Your task to perform on an android device: Search for vegetarian restaurants on Maps Image 0: 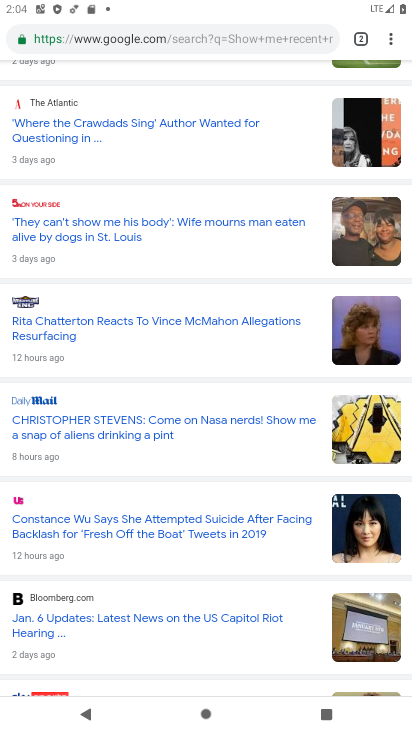
Step 0: press home button
Your task to perform on an android device: Search for vegetarian restaurants on Maps Image 1: 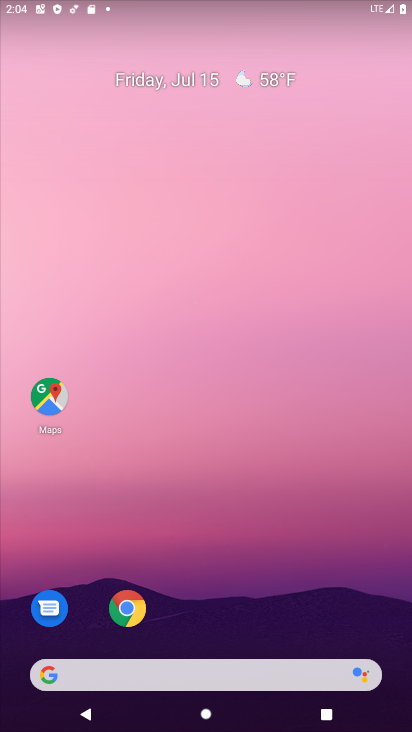
Step 1: drag from (307, 583) to (285, 103)
Your task to perform on an android device: Search for vegetarian restaurants on Maps Image 2: 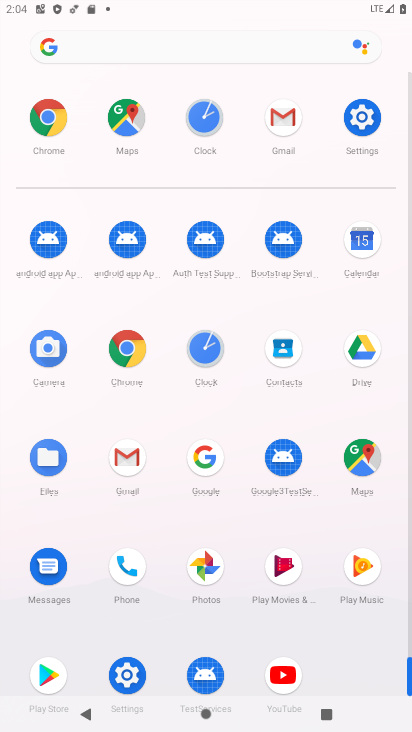
Step 2: click (359, 438)
Your task to perform on an android device: Search for vegetarian restaurants on Maps Image 3: 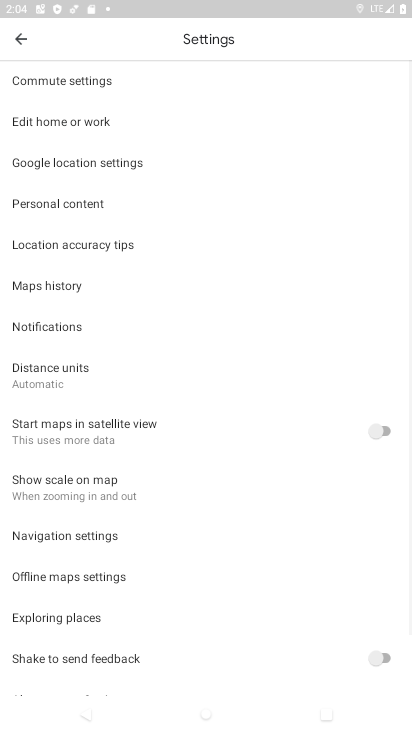
Step 3: click (26, 39)
Your task to perform on an android device: Search for vegetarian restaurants on Maps Image 4: 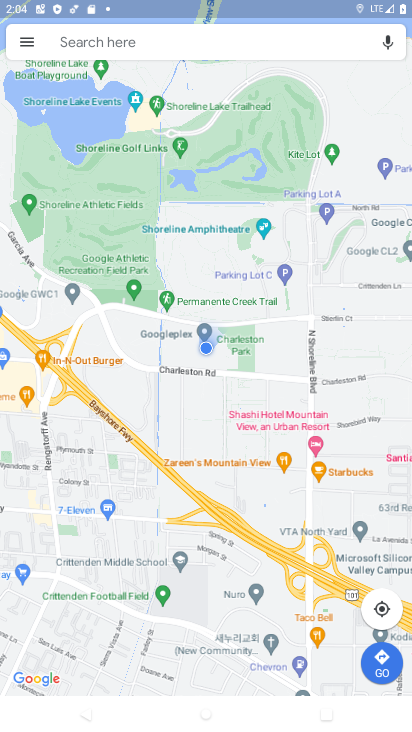
Step 4: click (167, 45)
Your task to perform on an android device: Search for vegetarian restaurants on Maps Image 5: 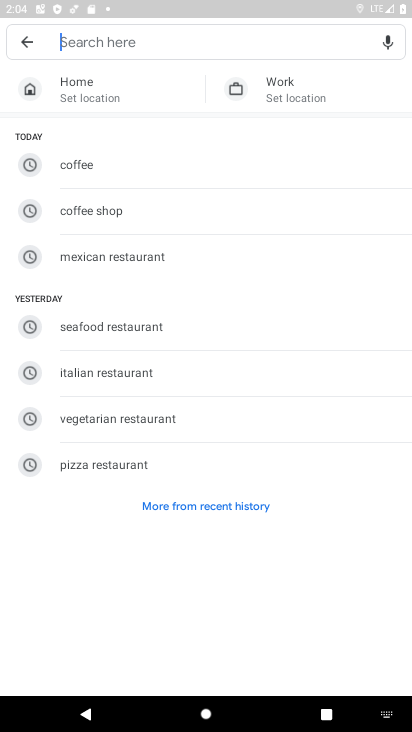
Step 5: type "vegetarian restaurants"
Your task to perform on an android device: Search for vegetarian restaurants on Maps Image 6: 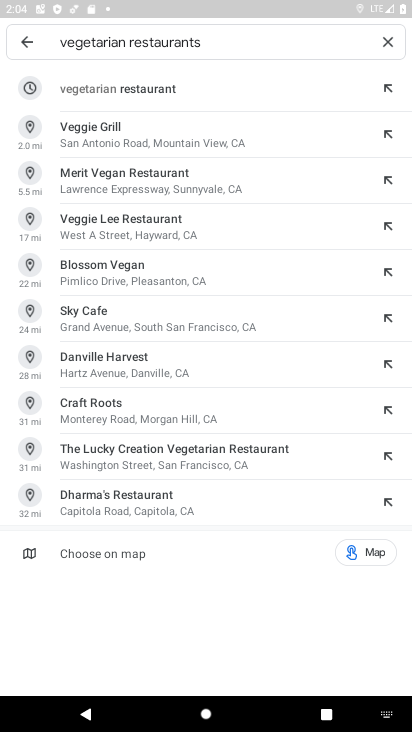
Step 6: click (111, 83)
Your task to perform on an android device: Search for vegetarian restaurants on Maps Image 7: 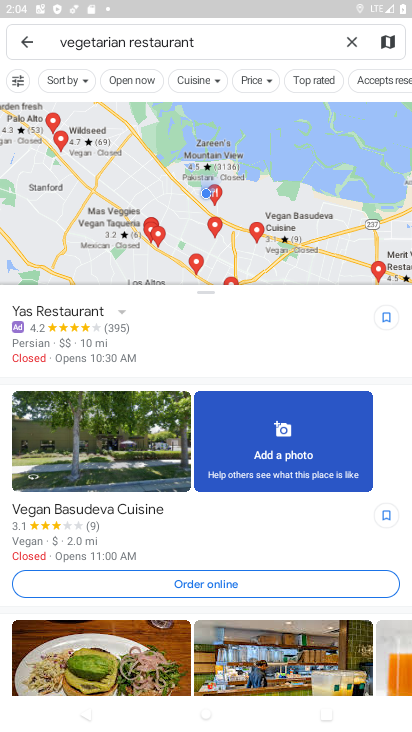
Step 7: task complete